Your task to perform on an android device: read, delete, or share a saved page in the chrome app Image 0: 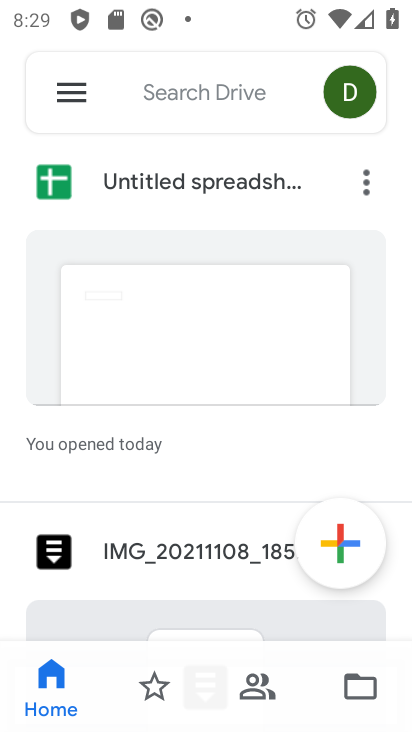
Step 0: press home button
Your task to perform on an android device: read, delete, or share a saved page in the chrome app Image 1: 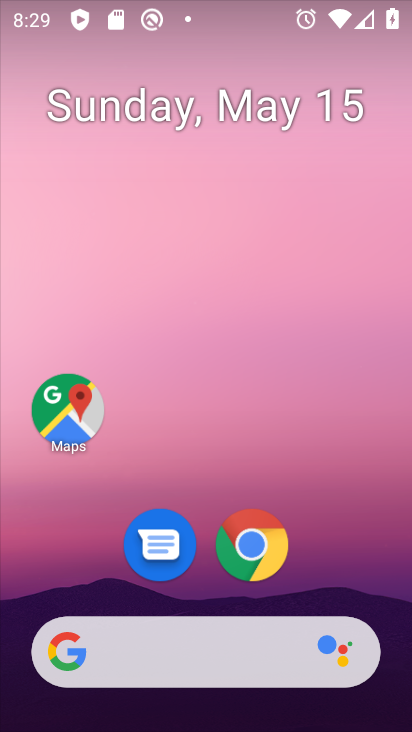
Step 1: drag from (338, 549) to (354, 107)
Your task to perform on an android device: read, delete, or share a saved page in the chrome app Image 2: 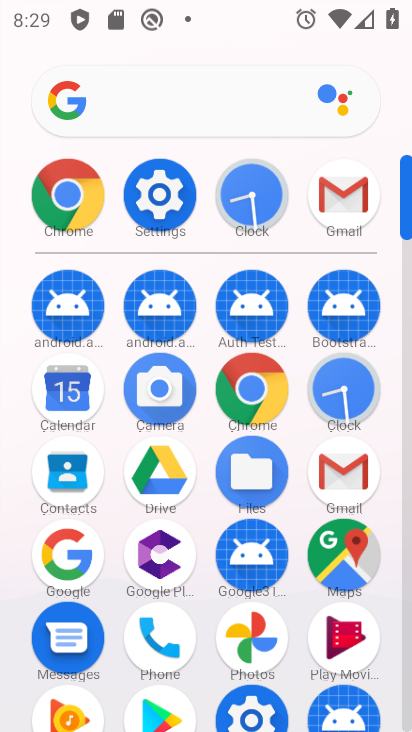
Step 2: click (267, 397)
Your task to perform on an android device: read, delete, or share a saved page in the chrome app Image 3: 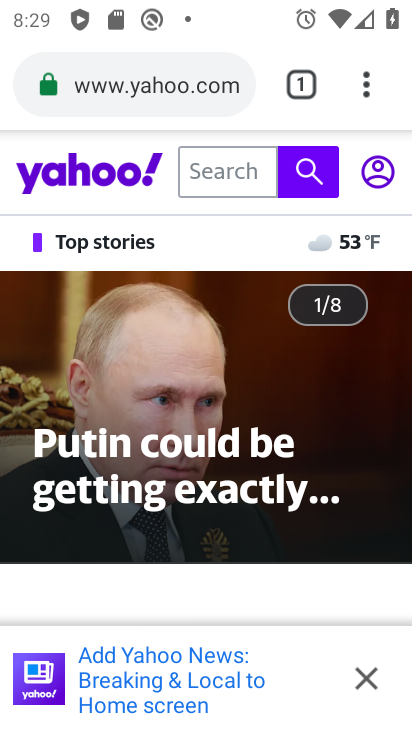
Step 3: click (370, 96)
Your task to perform on an android device: read, delete, or share a saved page in the chrome app Image 4: 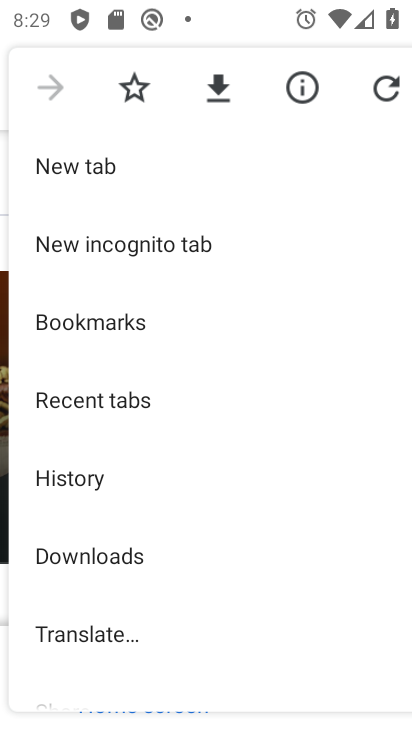
Step 4: drag from (287, 517) to (304, 394)
Your task to perform on an android device: read, delete, or share a saved page in the chrome app Image 5: 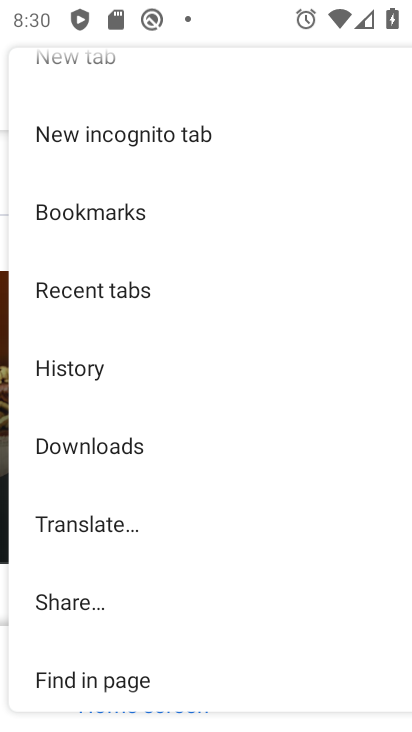
Step 5: drag from (291, 631) to (307, 337)
Your task to perform on an android device: read, delete, or share a saved page in the chrome app Image 6: 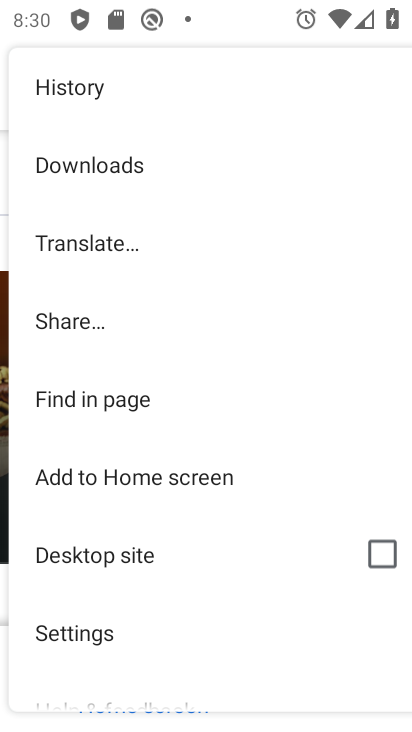
Step 6: drag from (261, 626) to (276, 345)
Your task to perform on an android device: read, delete, or share a saved page in the chrome app Image 7: 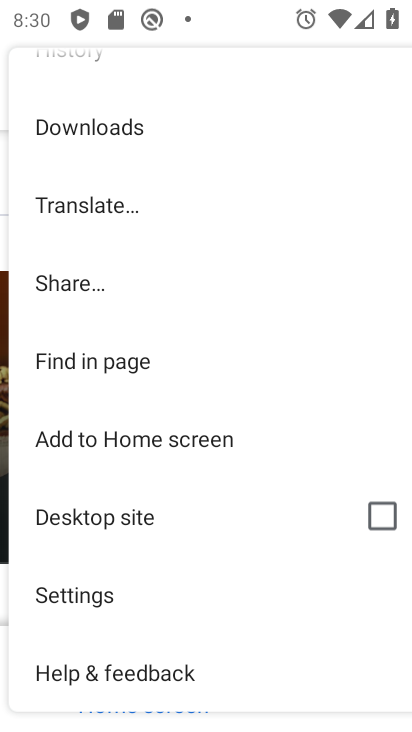
Step 7: drag from (283, 202) to (277, 487)
Your task to perform on an android device: read, delete, or share a saved page in the chrome app Image 8: 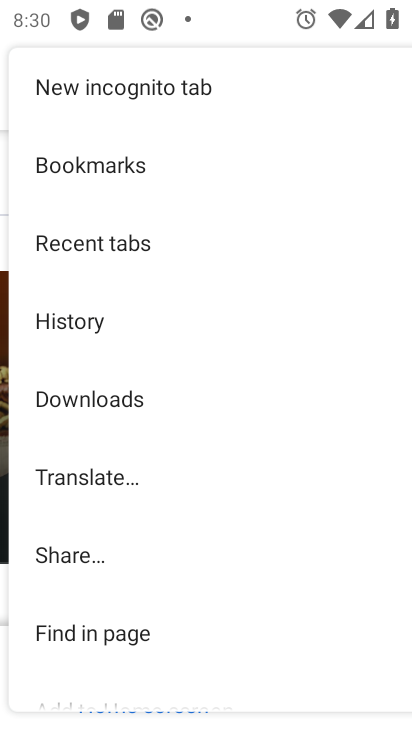
Step 8: click (135, 405)
Your task to perform on an android device: read, delete, or share a saved page in the chrome app Image 9: 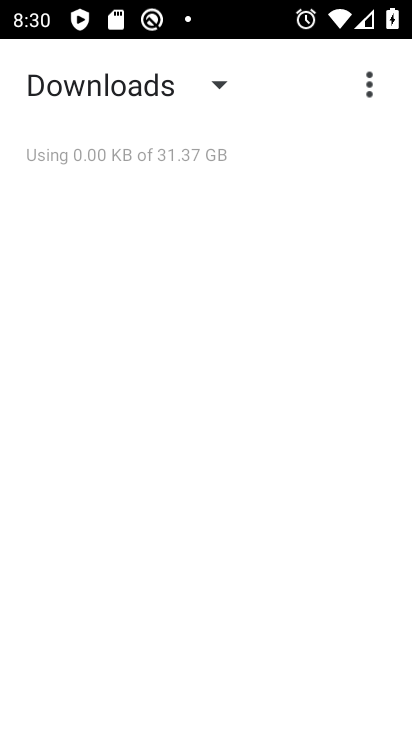
Step 9: click (218, 85)
Your task to perform on an android device: read, delete, or share a saved page in the chrome app Image 10: 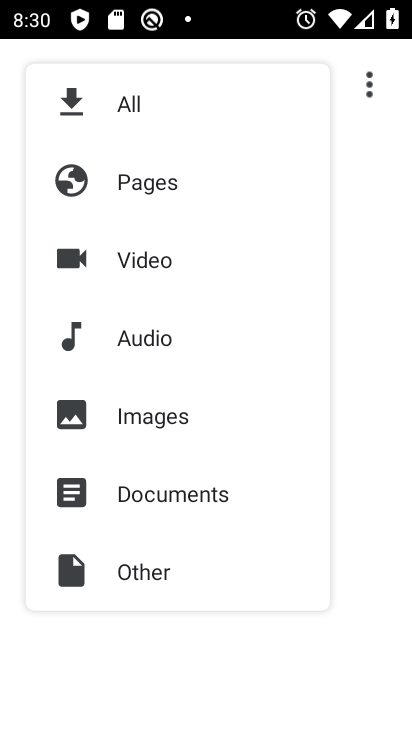
Step 10: click (158, 177)
Your task to perform on an android device: read, delete, or share a saved page in the chrome app Image 11: 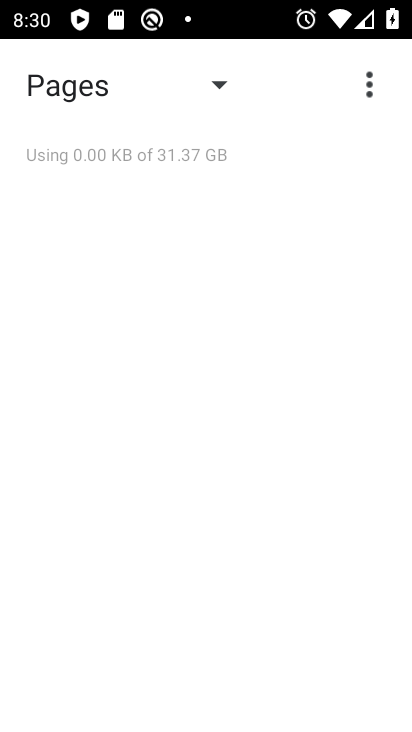
Step 11: task complete